Your task to perform on an android device: Open internet settings Image 0: 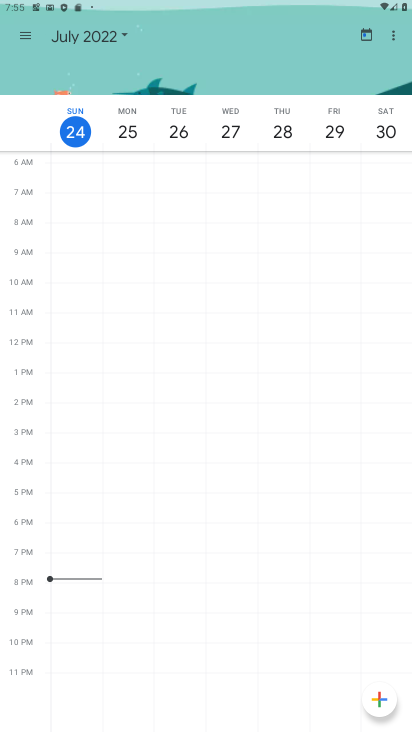
Step 0: press home button
Your task to perform on an android device: Open internet settings Image 1: 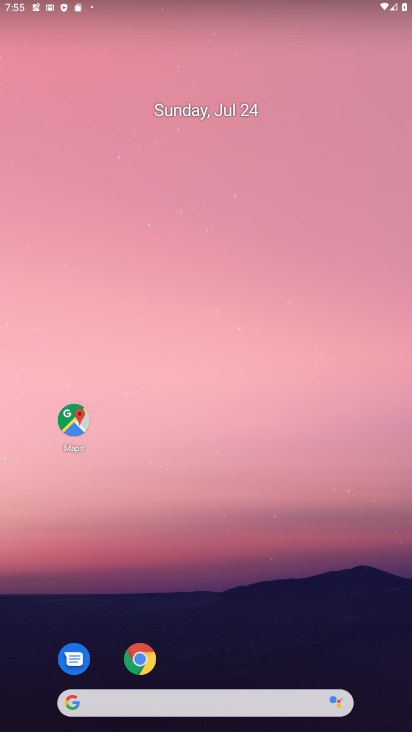
Step 1: drag from (230, 677) to (235, 14)
Your task to perform on an android device: Open internet settings Image 2: 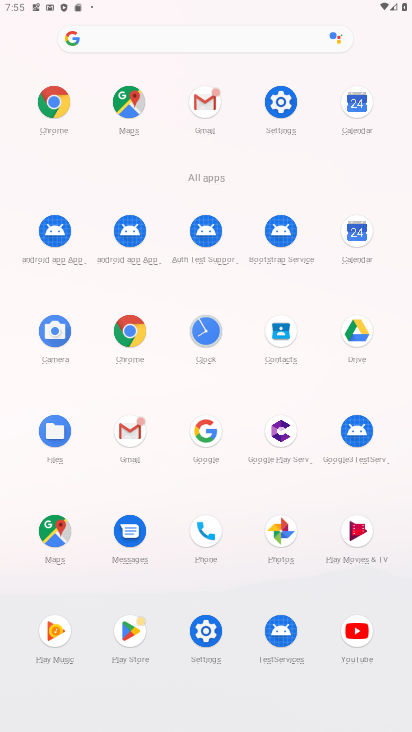
Step 2: click (272, 104)
Your task to perform on an android device: Open internet settings Image 3: 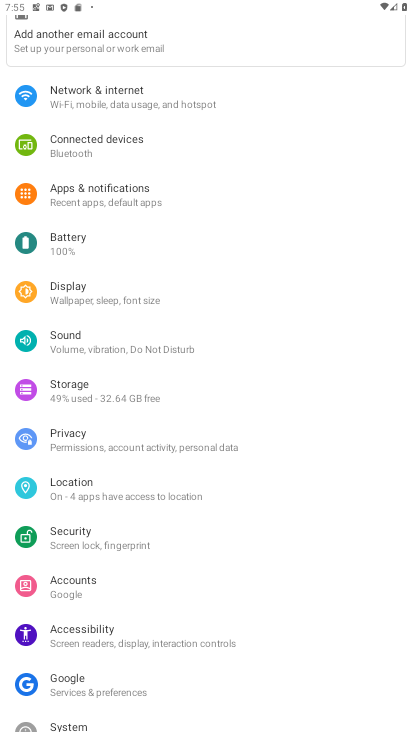
Step 3: click (92, 100)
Your task to perform on an android device: Open internet settings Image 4: 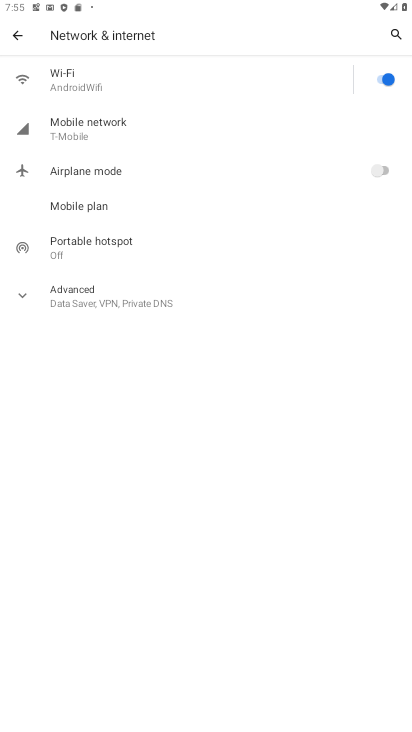
Step 4: click (28, 297)
Your task to perform on an android device: Open internet settings Image 5: 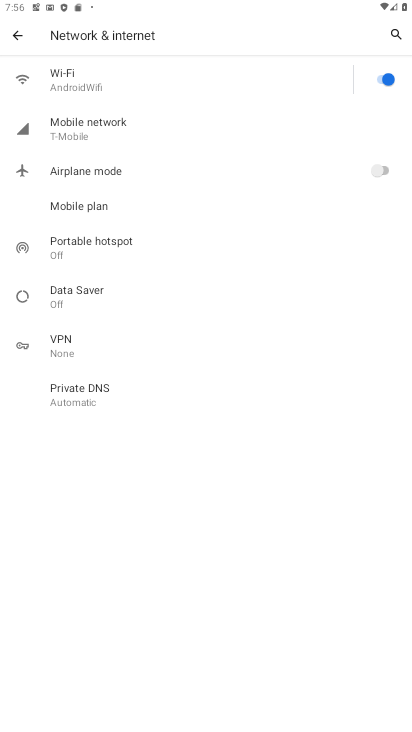
Step 5: task complete